Your task to perform on an android device: toggle data saver in the chrome app Image 0: 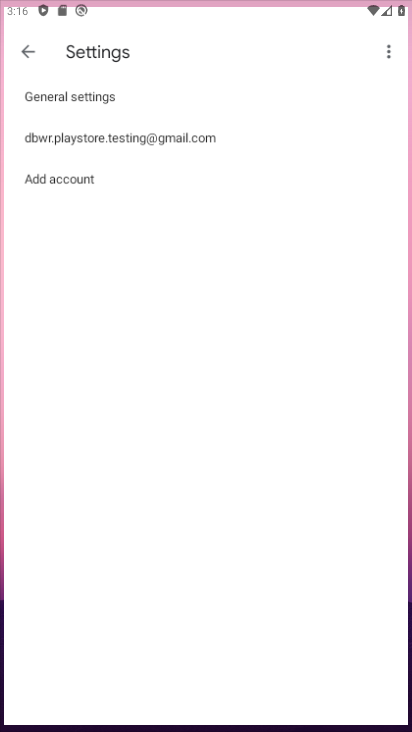
Step 0: press home button
Your task to perform on an android device: toggle data saver in the chrome app Image 1: 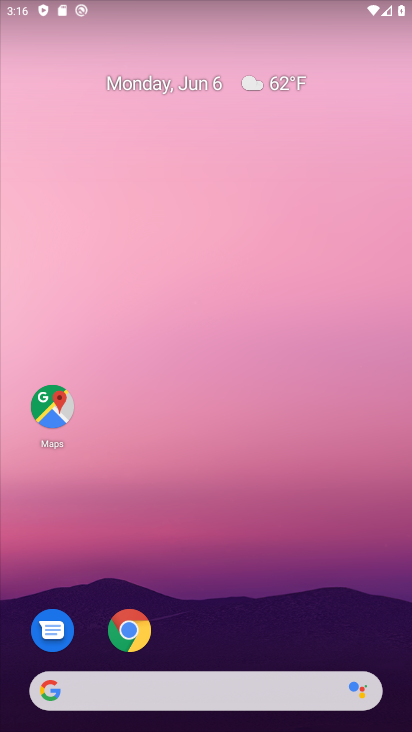
Step 1: click (133, 618)
Your task to perform on an android device: toggle data saver in the chrome app Image 2: 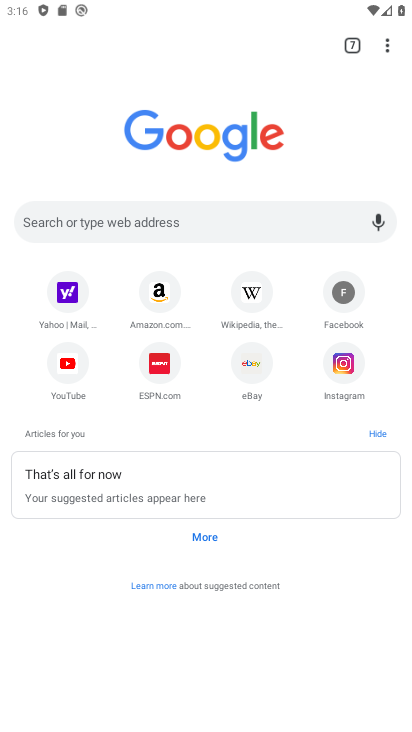
Step 2: drag from (393, 40) to (252, 364)
Your task to perform on an android device: toggle data saver in the chrome app Image 3: 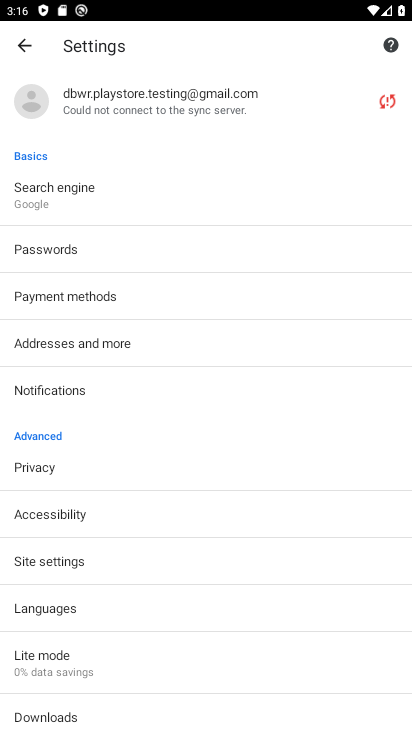
Step 3: click (32, 661)
Your task to perform on an android device: toggle data saver in the chrome app Image 4: 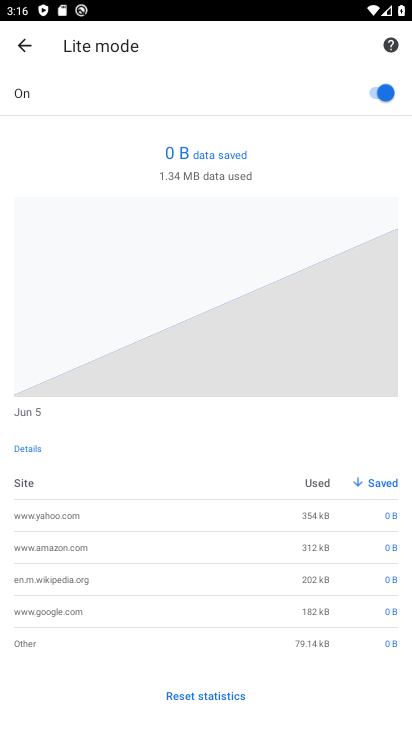
Step 4: click (321, 86)
Your task to perform on an android device: toggle data saver in the chrome app Image 5: 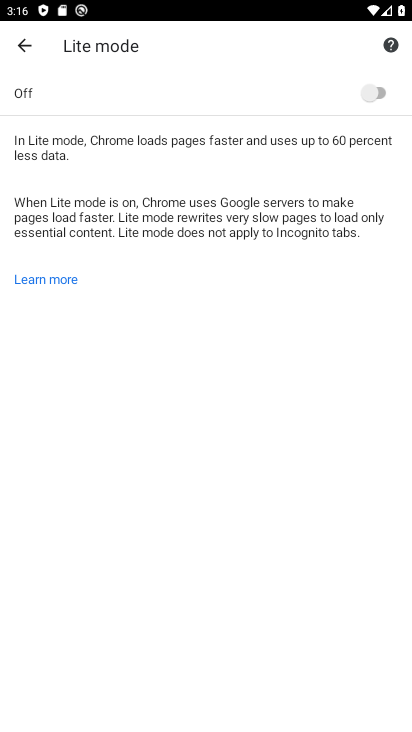
Step 5: task complete